Your task to perform on an android device: open wifi settings Image 0: 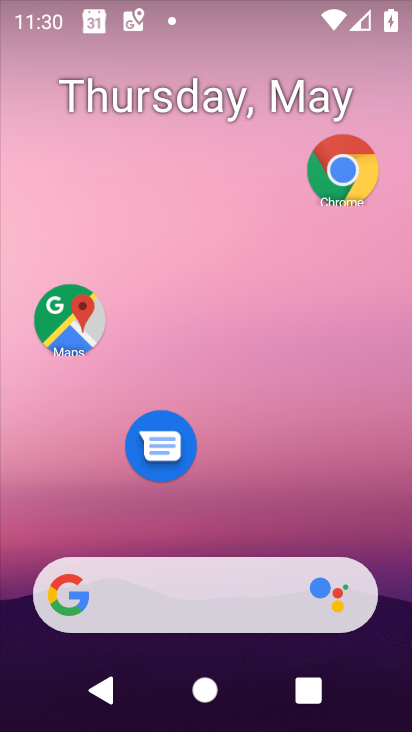
Step 0: drag from (341, 606) to (335, 108)
Your task to perform on an android device: open wifi settings Image 1: 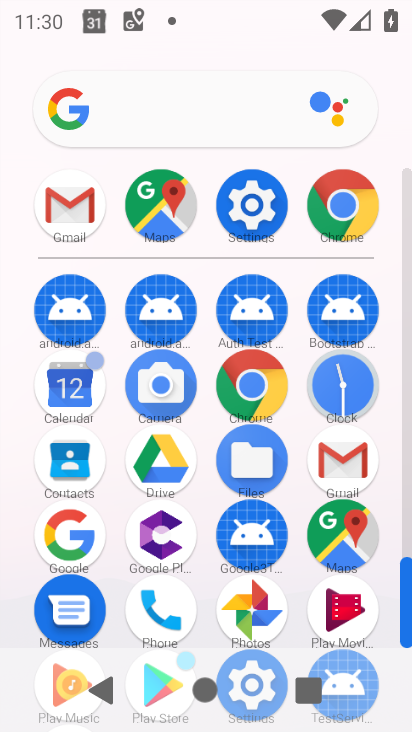
Step 1: click (267, 206)
Your task to perform on an android device: open wifi settings Image 2: 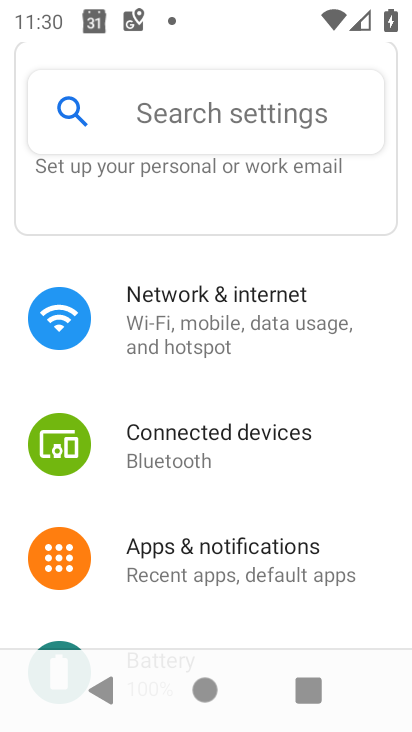
Step 2: click (276, 313)
Your task to perform on an android device: open wifi settings Image 3: 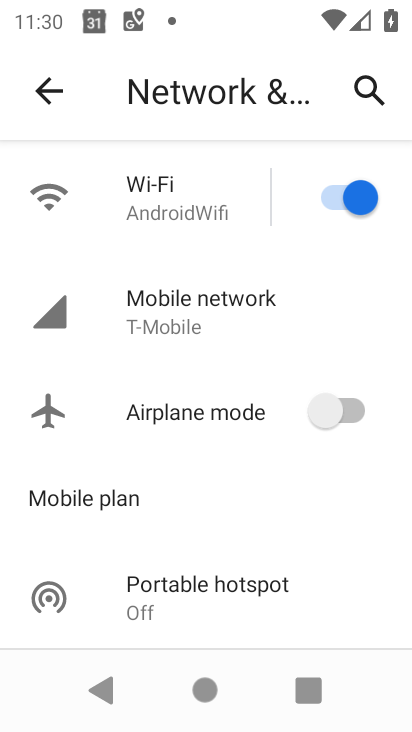
Step 3: click (224, 218)
Your task to perform on an android device: open wifi settings Image 4: 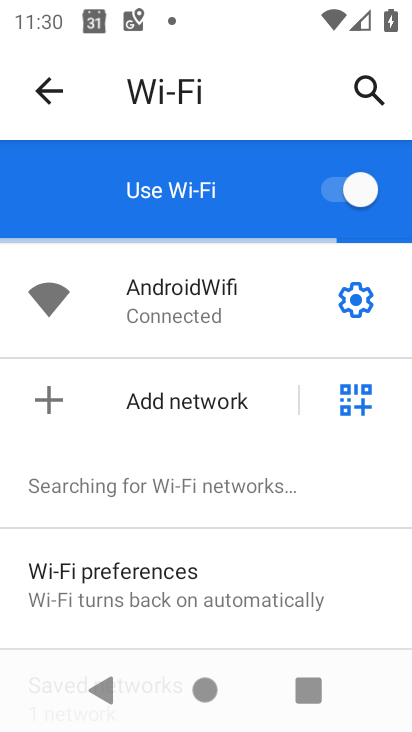
Step 4: task complete